Your task to perform on an android device: Go to internet settings Image 0: 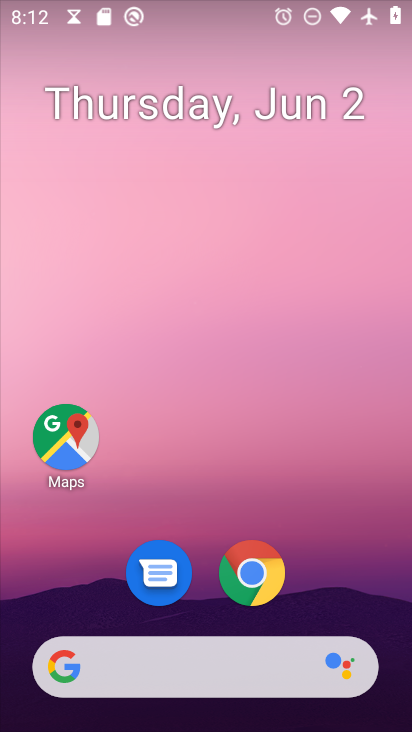
Step 0: press home button
Your task to perform on an android device: Go to internet settings Image 1: 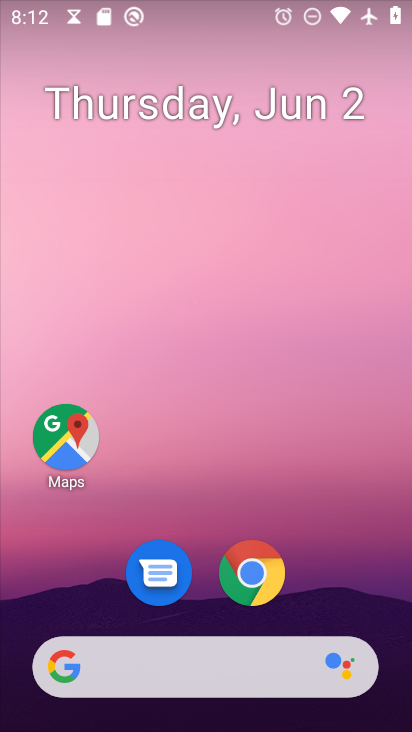
Step 1: drag from (201, 686) to (313, 63)
Your task to perform on an android device: Go to internet settings Image 2: 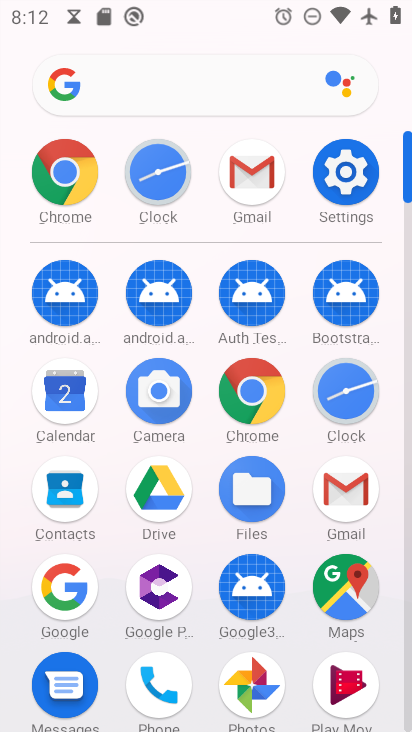
Step 2: click (355, 173)
Your task to perform on an android device: Go to internet settings Image 3: 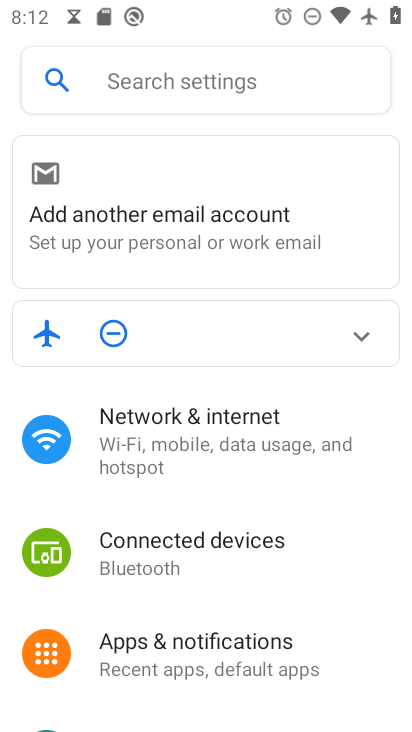
Step 3: click (226, 416)
Your task to perform on an android device: Go to internet settings Image 4: 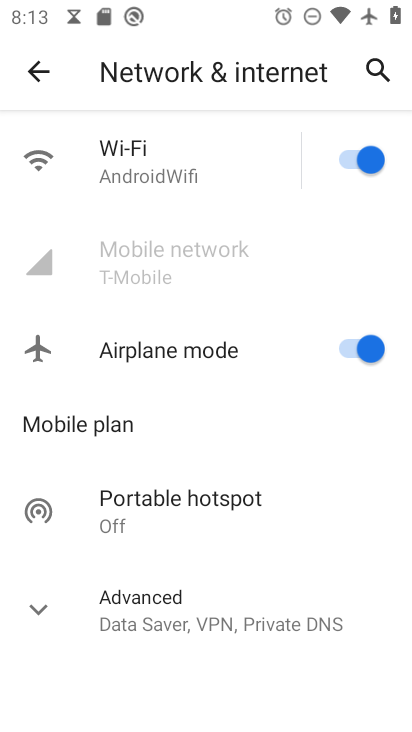
Step 4: task complete